Your task to perform on an android device: How big is a giraffe? Image 0: 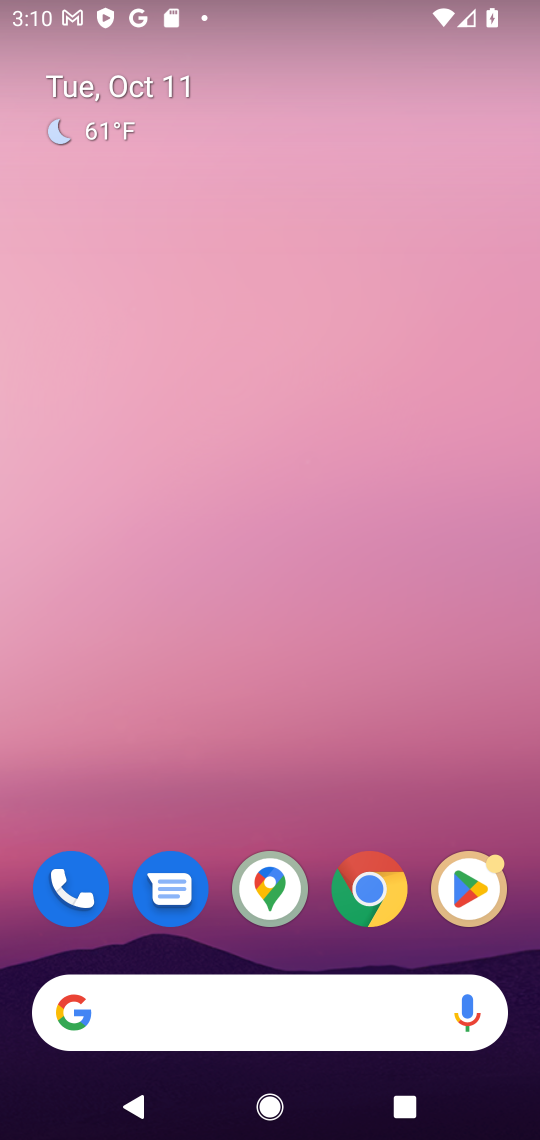
Step 0: click (327, 138)
Your task to perform on an android device: How big is a giraffe? Image 1: 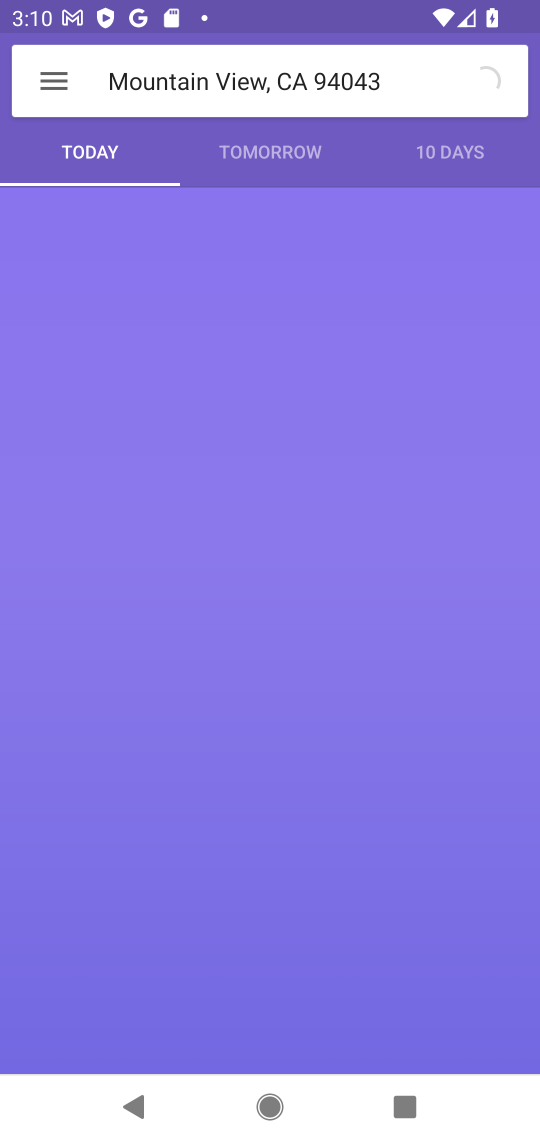
Step 1: drag from (269, 845) to (271, 313)
Your task to perform on an android device: How big is a giraffe? Image 2: 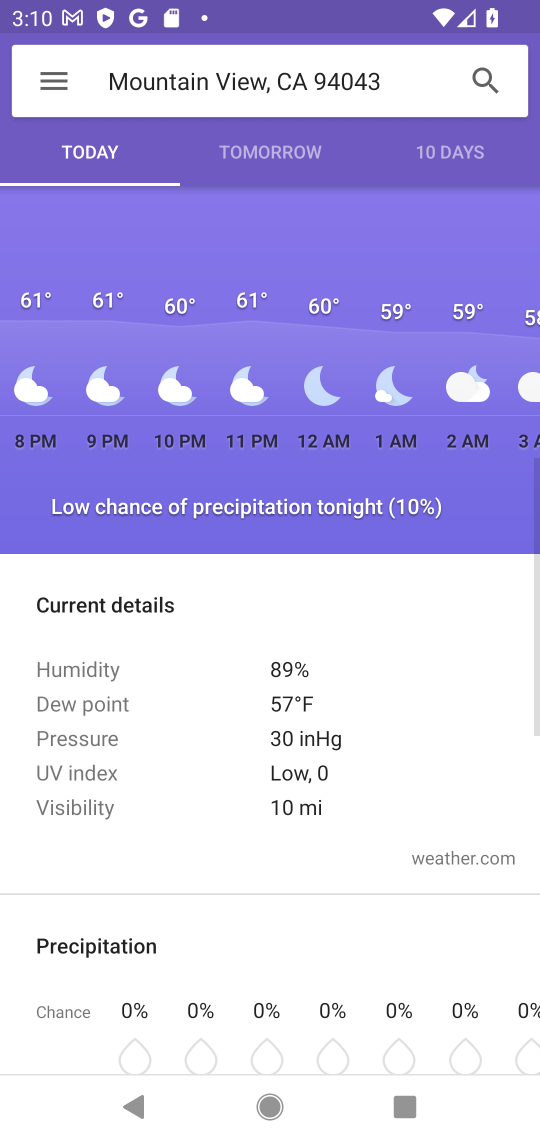
Step 2: press home button
Your task to perform on an android device: How big is a giraffe? Image 3: 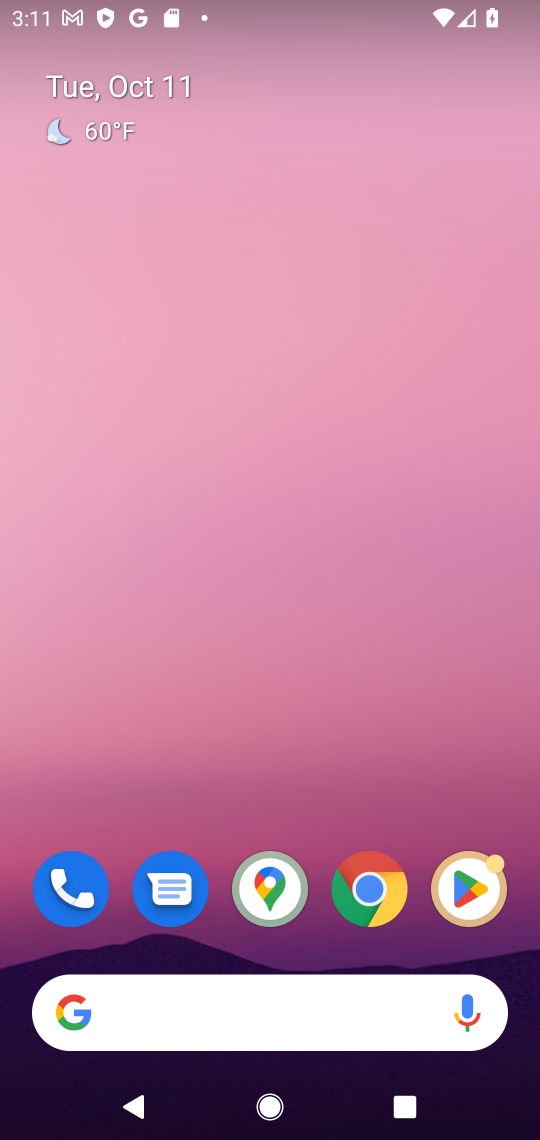
Step 3: click (248, 521)
Your task to perform on an android device: How big is a giraffe? Image 4: 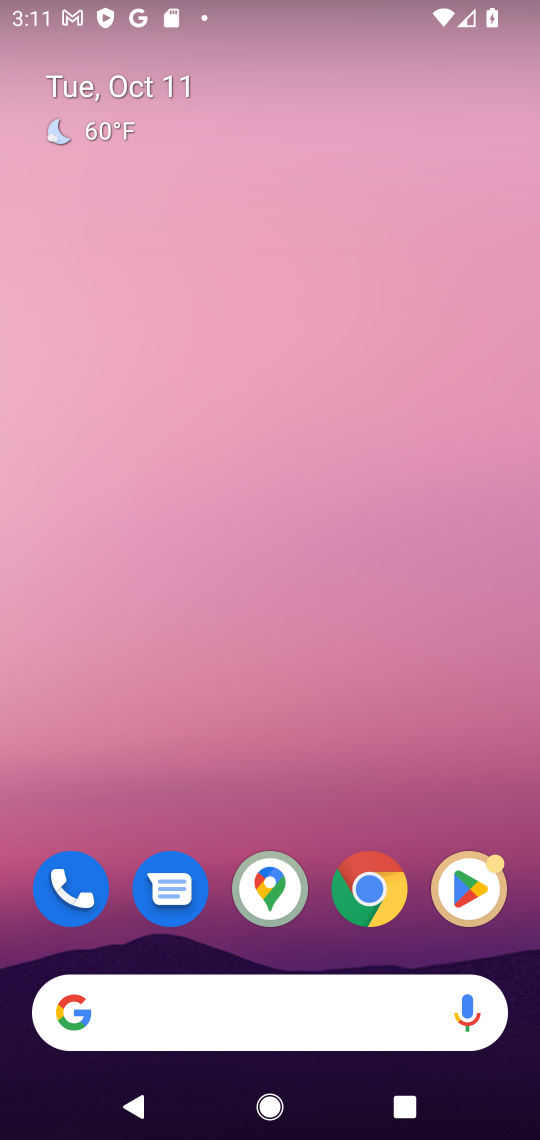
Step 4: drag from (300, 876) to (306, 476)
Your task to perform on an android device: How big is a giraffe? Image 5: 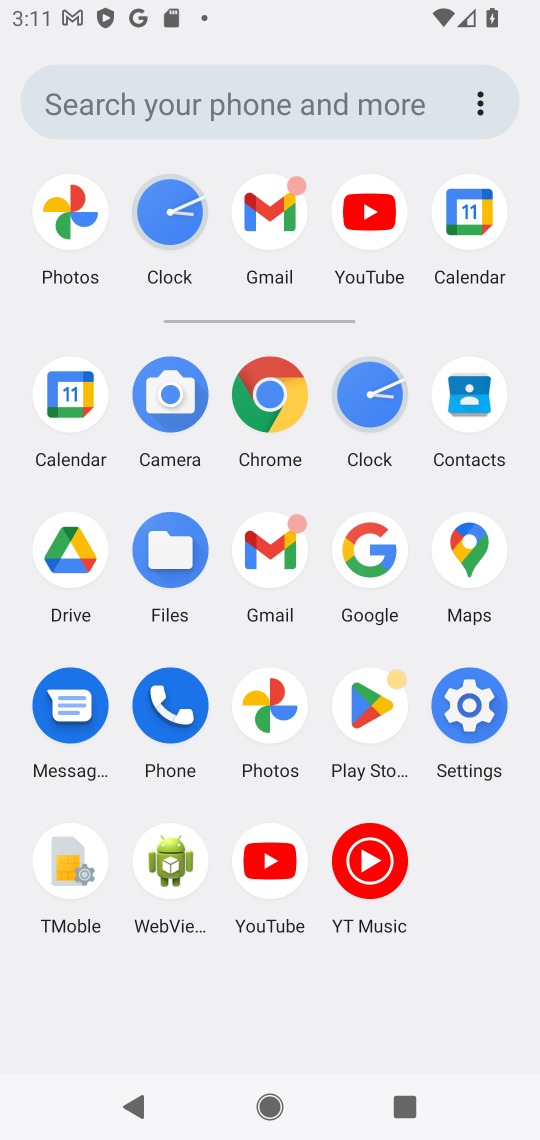
Step 5: click (359, 533)
Your task to perform on an android device: How big is a giraffe? Image 6: 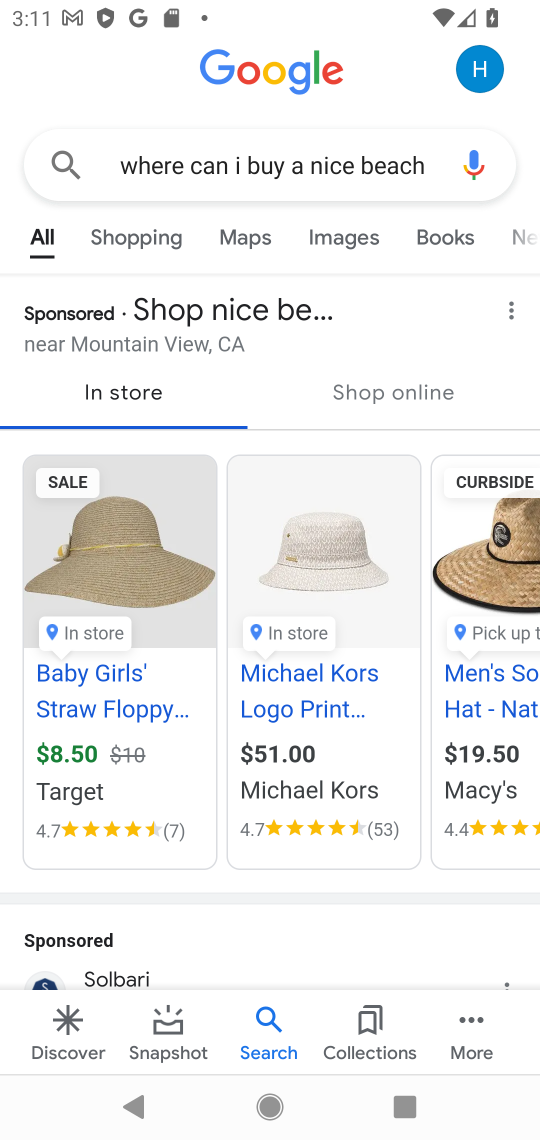
Step 6: click (256, 163)
Your task to perform on an android device: How big is a giraffe? Image 7: 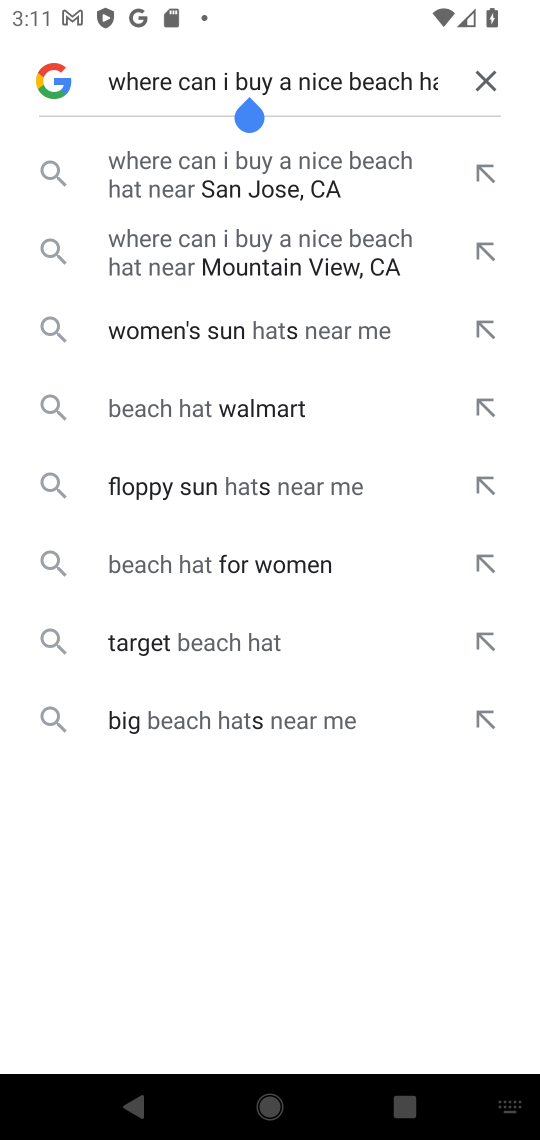
Step 7: click (489, 74)
Your task to perform on an android device: How big is a giraffe? Image 8: 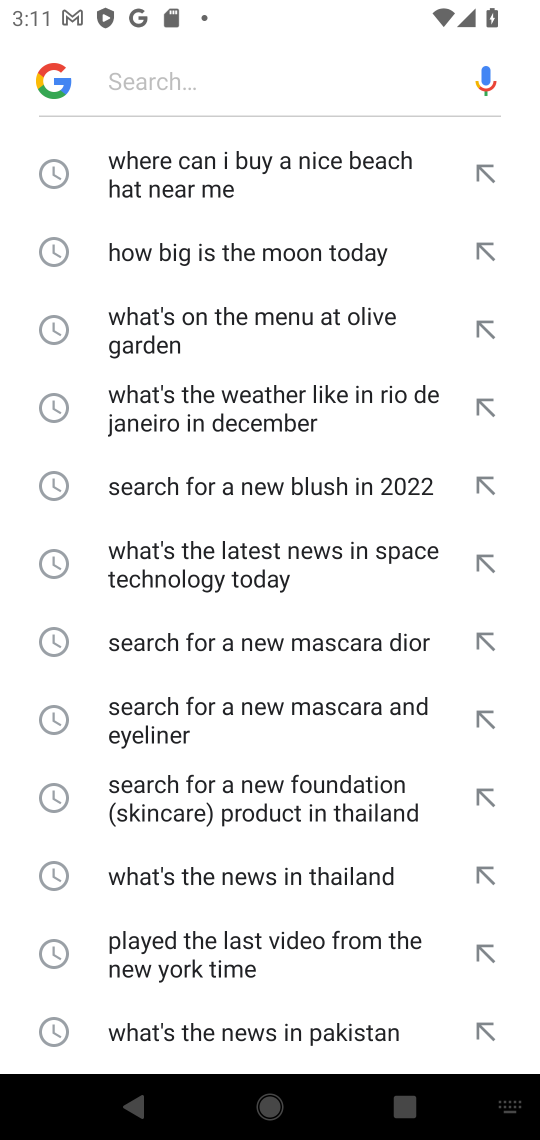
Step 8: click (259, 90)
Your task to perform on an android device: How big is a giraffe? Image 9: 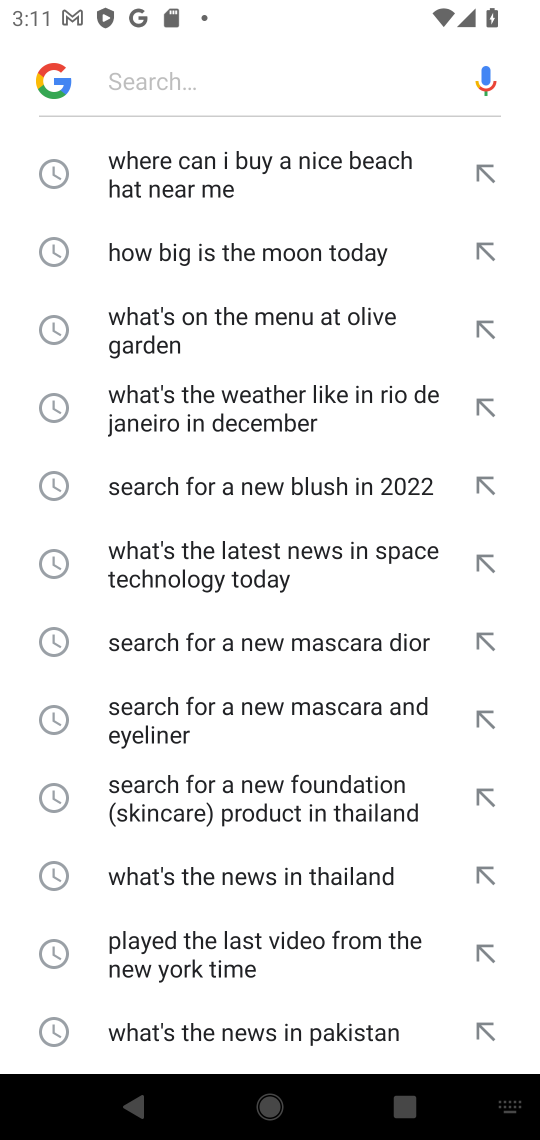
Step 9: type "How big is a giraffe "
Your task to perform on an android device: How big is a giraffe? Image 10: 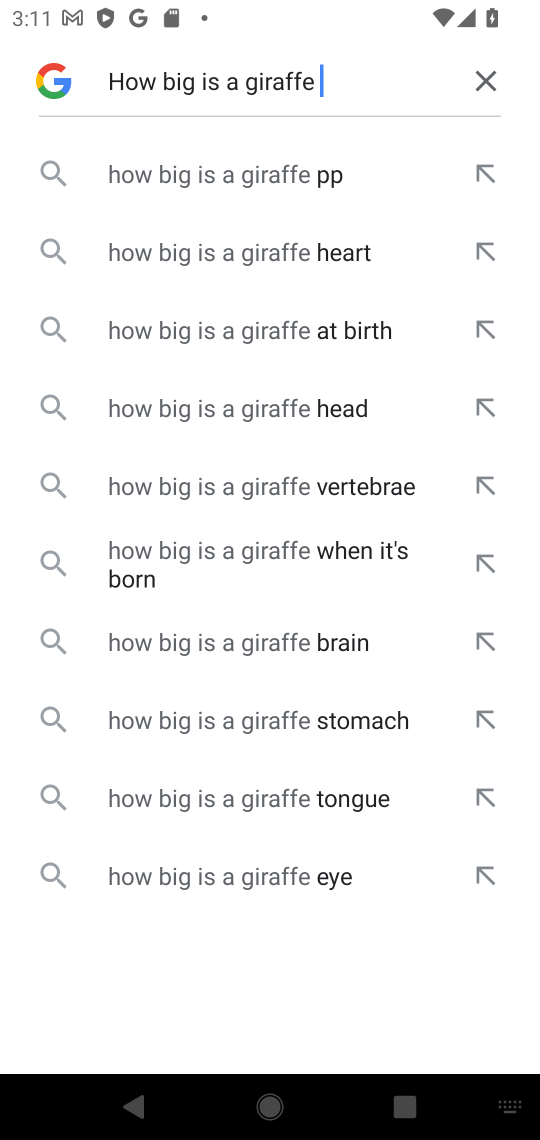
Step 10: click (182, 154)
Your task to perform on an android device: How big is a giraffe? Image 11: 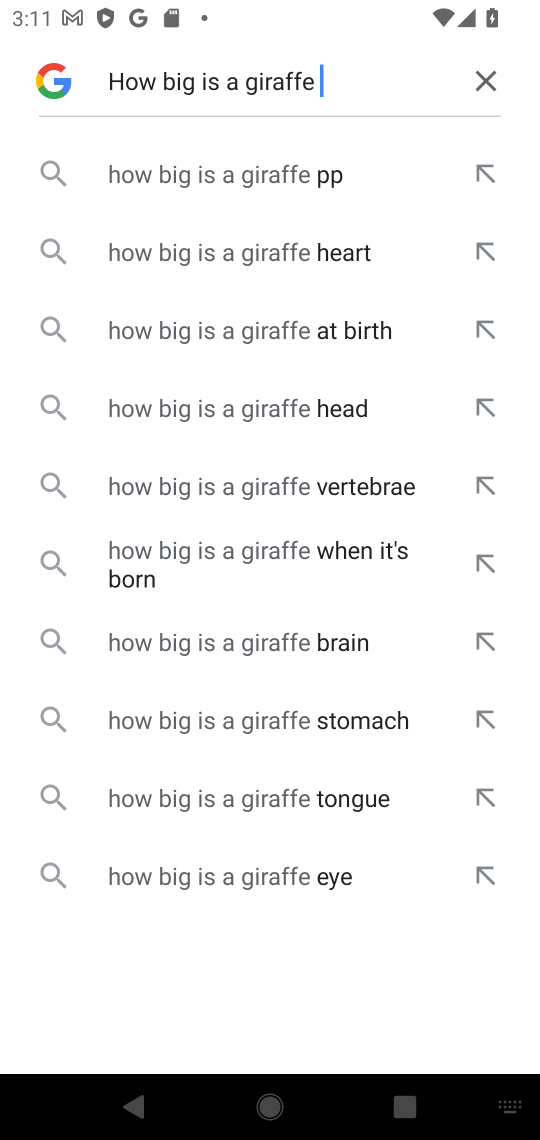
Step 11: click (185, 164)
Your task to perform on an android device: How big is a giraffe? Image 12: 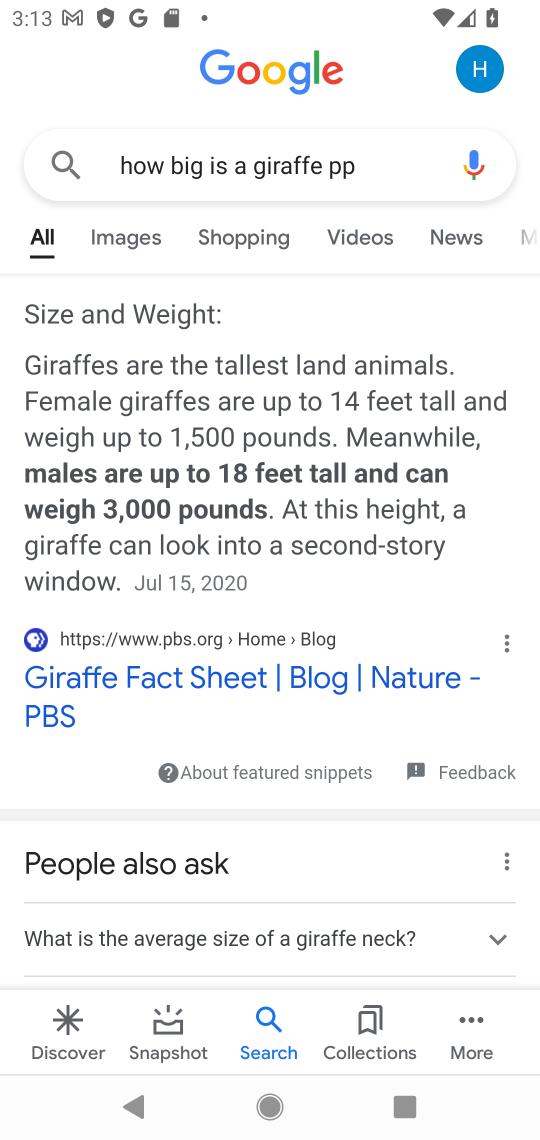
Step 12: task complete